Your task to perform on an android device: open sync settings in chrome Image 0: 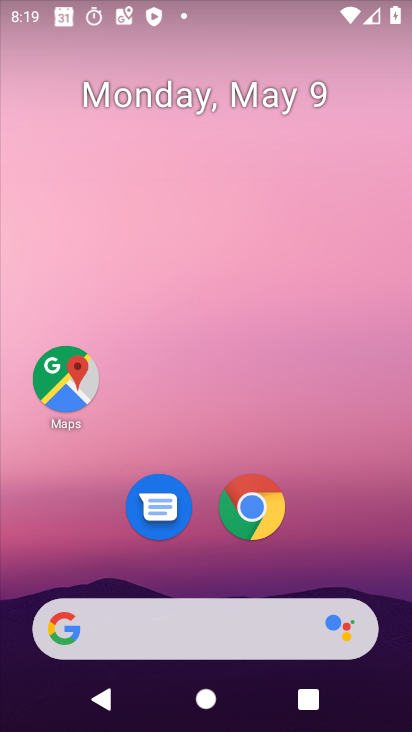
Step 0: drag from (330, 669) to (212, 149)
Your task to perform on an android device: open sync settings in chrome Image 1: 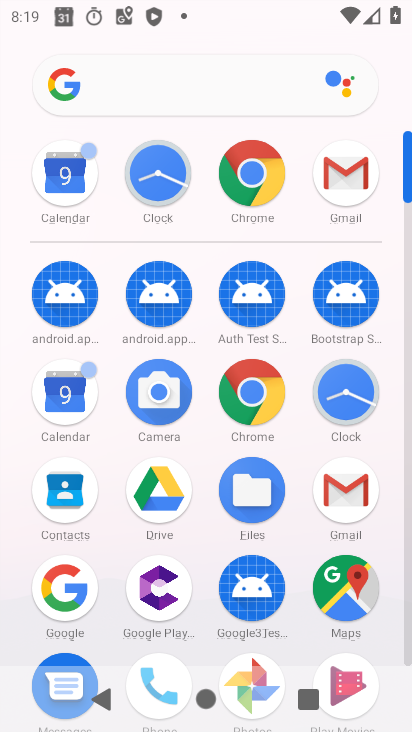
Step 1: click (250, 186)
Your task to perform on an android device: open sync settings in chrome Image 2: 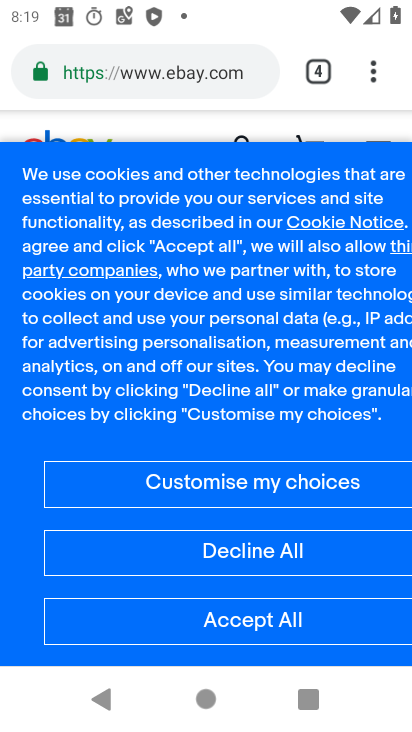
Step 2: click (364, 87)
Your task to perform on an android device: open sync settings in chrome Image 3: 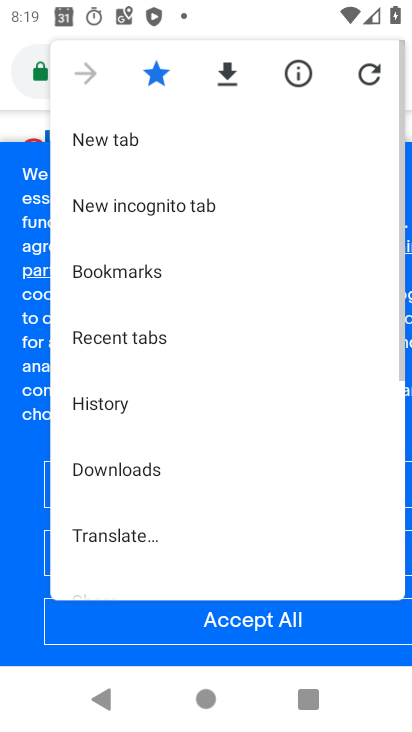
Step 3: drag from (151, 518) to (207, 279)
Your task to perform on an android device: open sync settings in chrome Image 4: 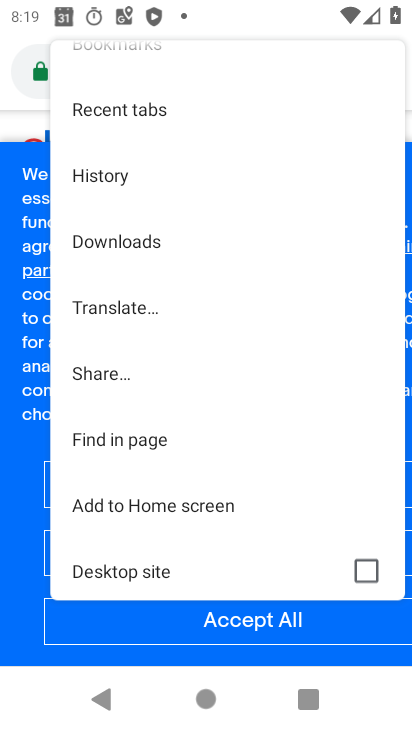
Step 4: drag from (157, 532) to (206, 409)
Your task to perform on an android device: open sync settings in chrome Image 5: 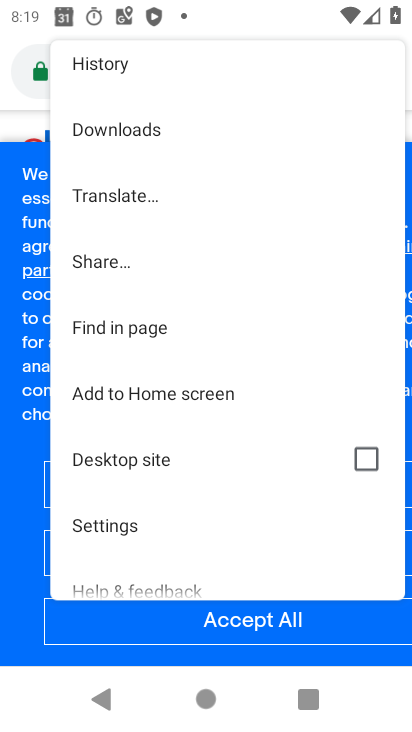
Step 5: click (143, 531)
Your task to perform on an android device: open sync settings in chrome Image 6: 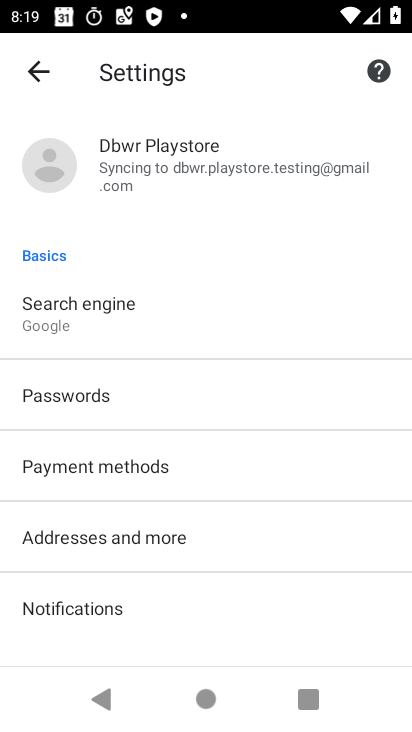
Step 6: drag from (135, 620) to (218, 242)
Your task to perform on an android device: open sync settings in chrome Image 7: 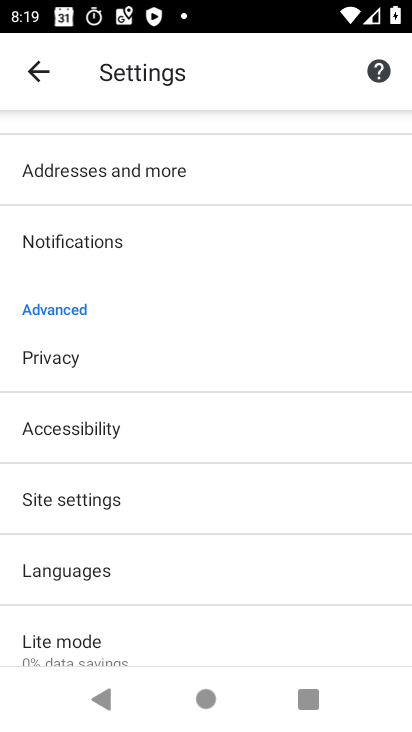
Step 7: click (118, 489)
Your task to perform on an android device: open sync settings in chrome Image 8: 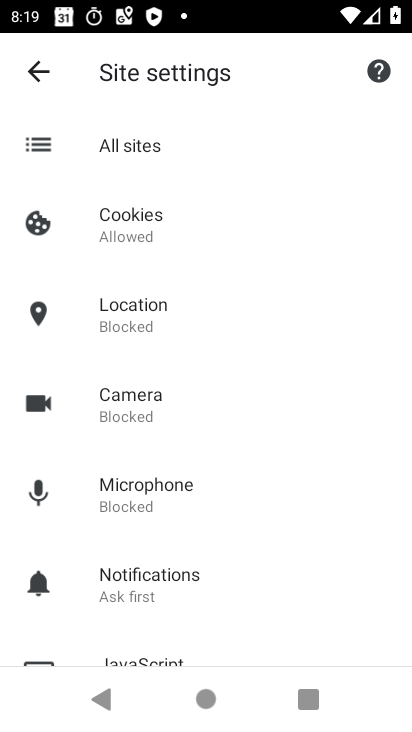
Step 8: drag from (161, 569) to (207, 263)
Your task to perform on an android device: open sync settings in chrome Image 9: 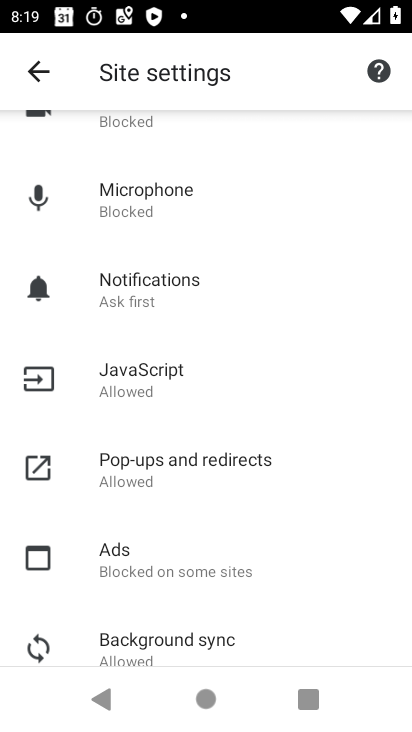
Step 9: click (196, 634)
Your task to perform on an android device: open sync settings in chrome Image 10: 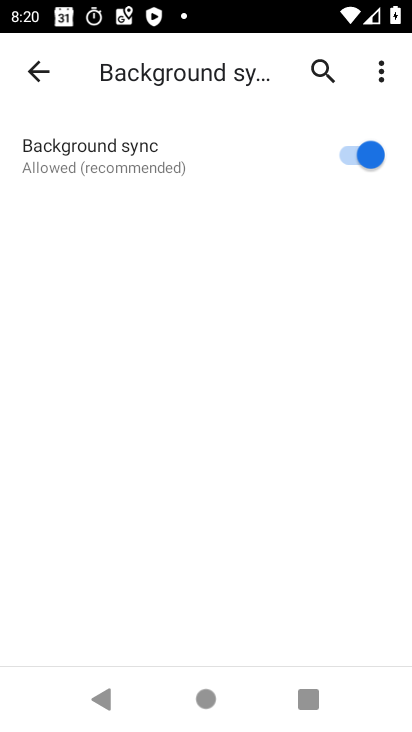
Step 10: task complete